Your task to perform on an android device: delete the emails in spam in the gmail app Image 0: 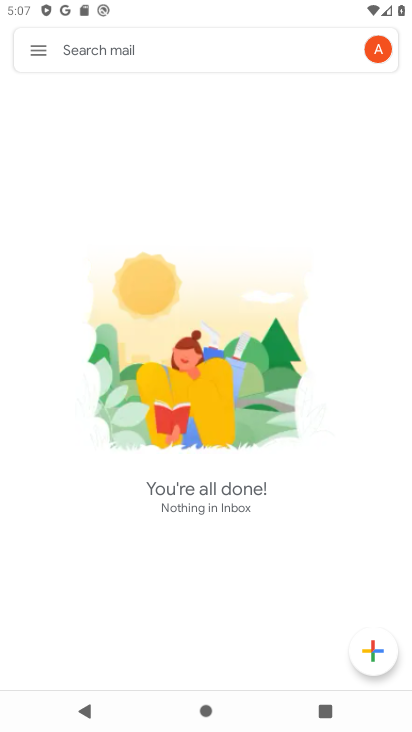
Step 0: click (35, 52)
Your task to perform on an android device: delete the emails in spam in the gmail app Image 1: 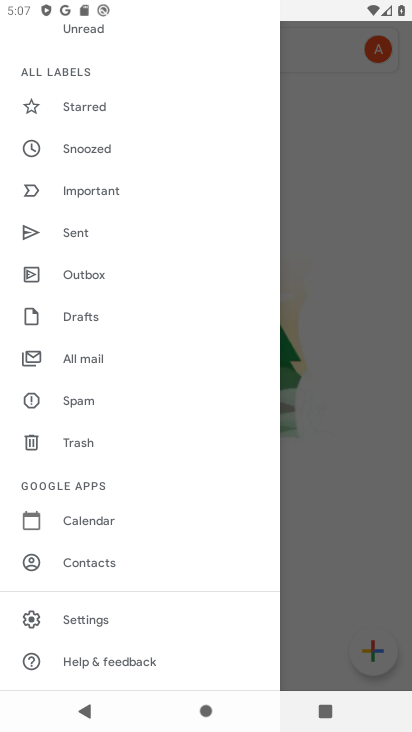
Step 1: click (77, 394)
Your task to perform on an android device: delete the emails in spam in the gmail app Image 2: 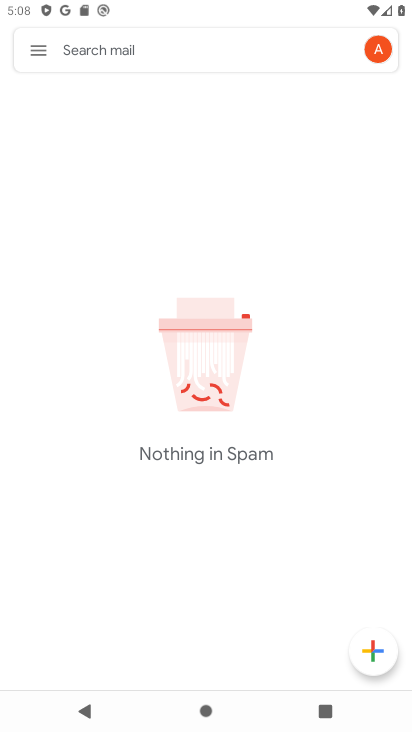
Step 2: task complete